Your task to perform on an android device: change the upload size in google photos Image 0: 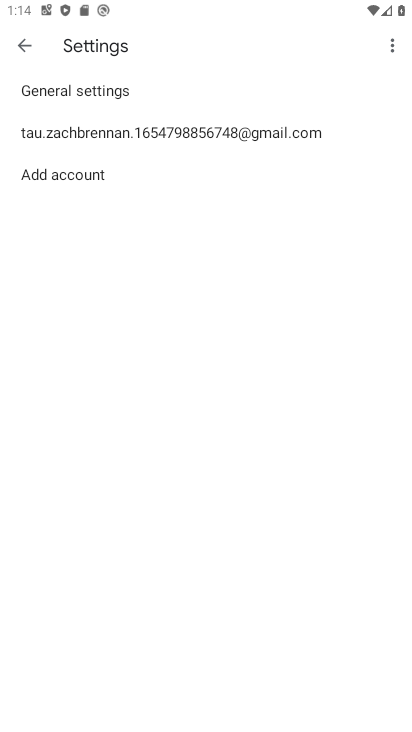
Step 0: press home button
Your task to perform on an android device: change the upload size in google photos Image 1: 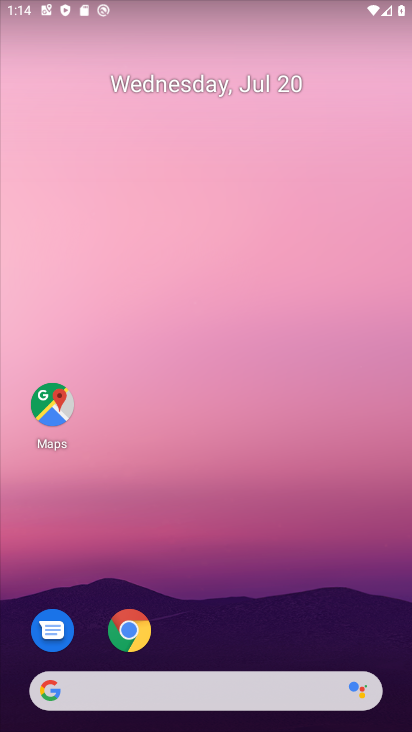
Step 1: drag from (257, 708) to (192, 151)
Your task to perform on an android device: change the upload size in google photos Image 2: 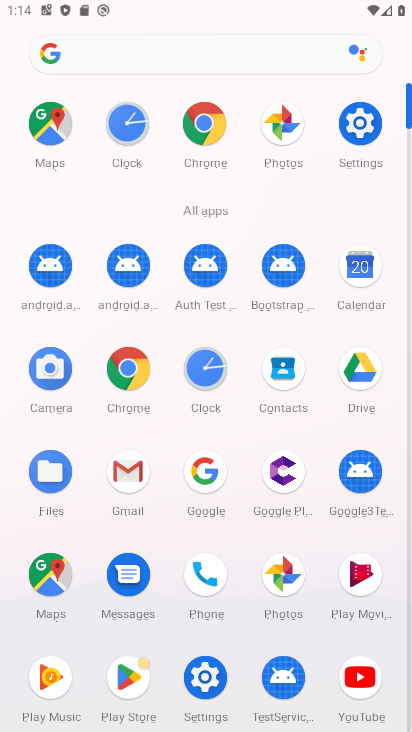
Step 2: click (294, 576)
Your task to perform on an android device: change the upload size in google photos Image 3: 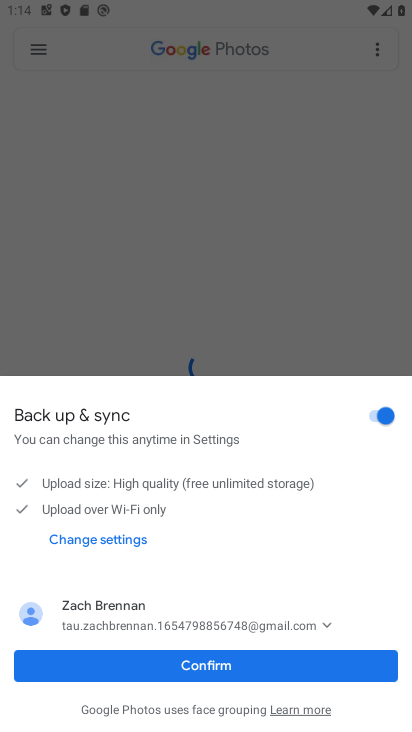
Step 3: click (202, 662)
Your task to perform on an android device: change the upload size in google photos Image 4: 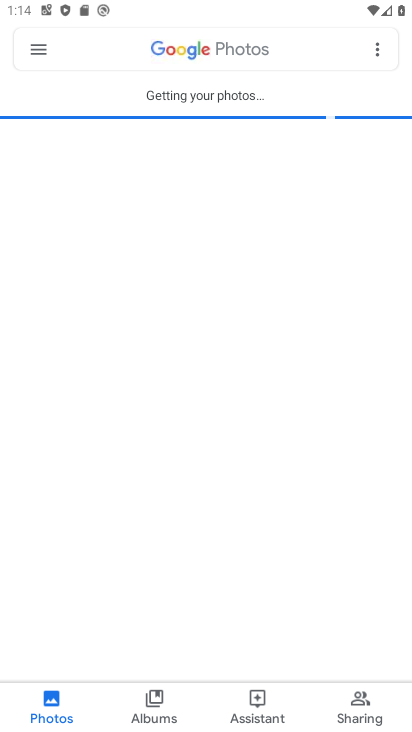
Step 4: click (44, 56)
Your task to perform on an android device: change the upload size in google photos Image 5: 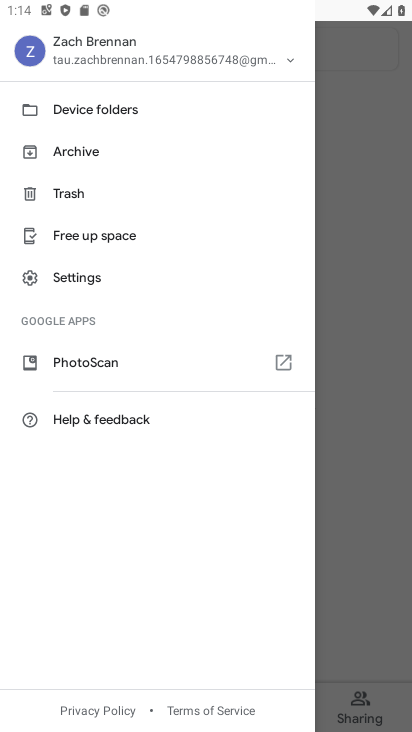
Step 5: click (85, 280)
Your task to perform on an android device: change the upload size in google photos Image 6: 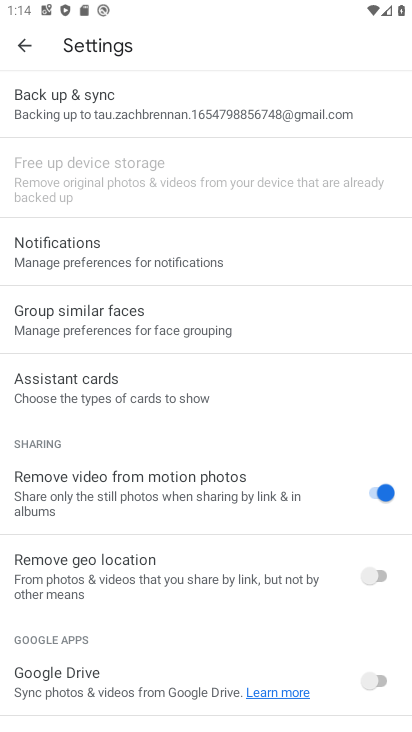
Step 6: click (83, 96)
Your task to perform on an android device: change the upload size in google photos Image 7: 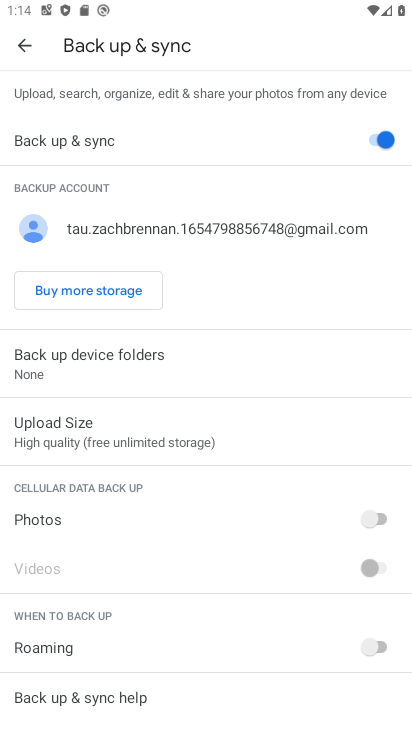
Step 7: click (129, 427)
Your task to perform on an android device: change the upload size in google photos Image 8: 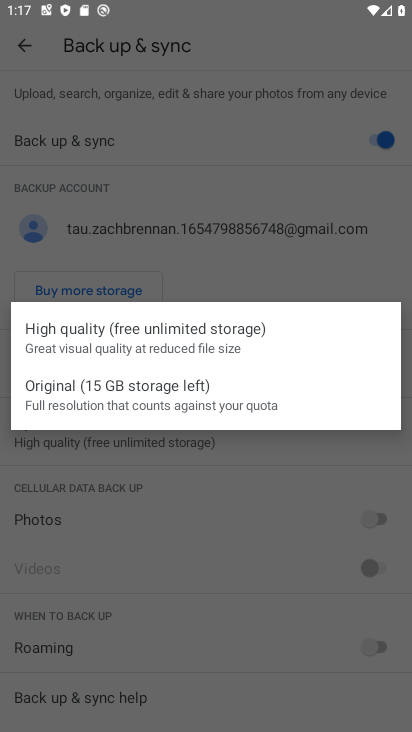
Step 8: task complete